Your task to perform on an android device: Open Android settings Image 0: 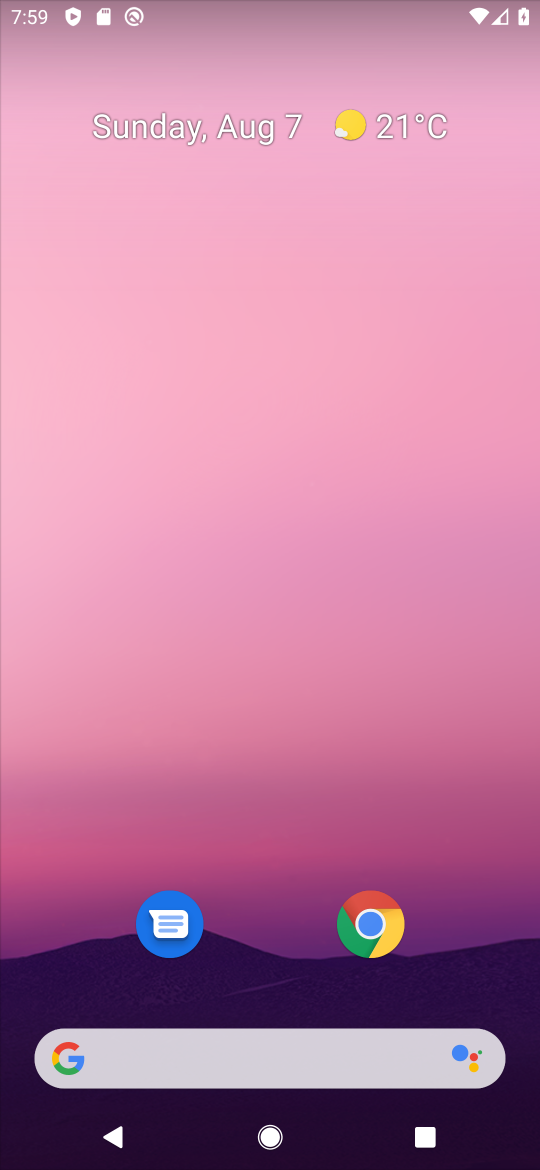
Step 0: drag from (274, 735) to (232, 2)
Your task to perform on an android device: Open Android settings Image 1: 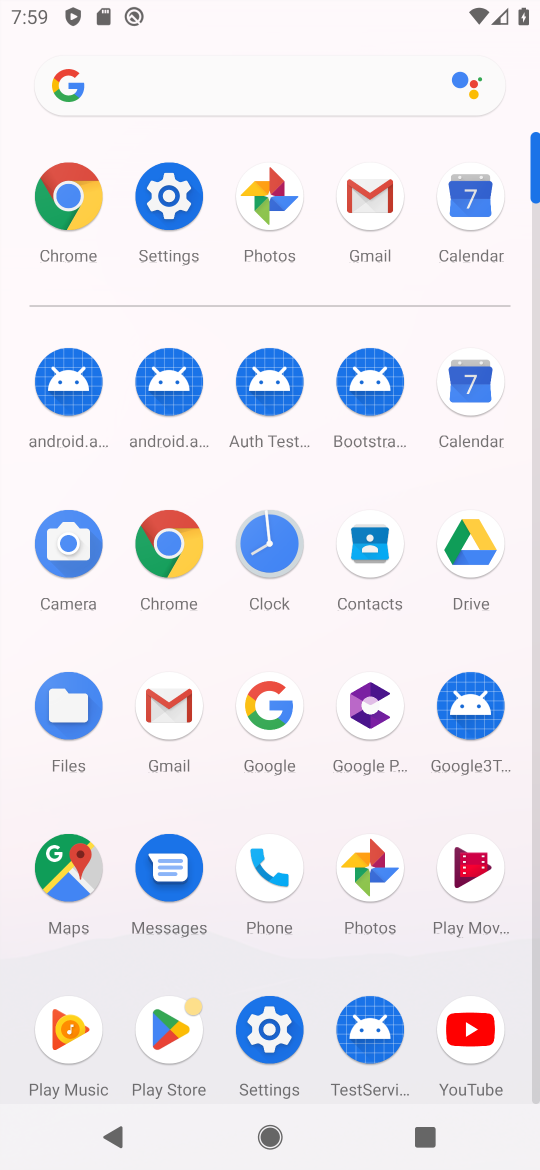
Step 1: click (167, 206)
Your task to perform on an android device: Open Android settings Image 2: 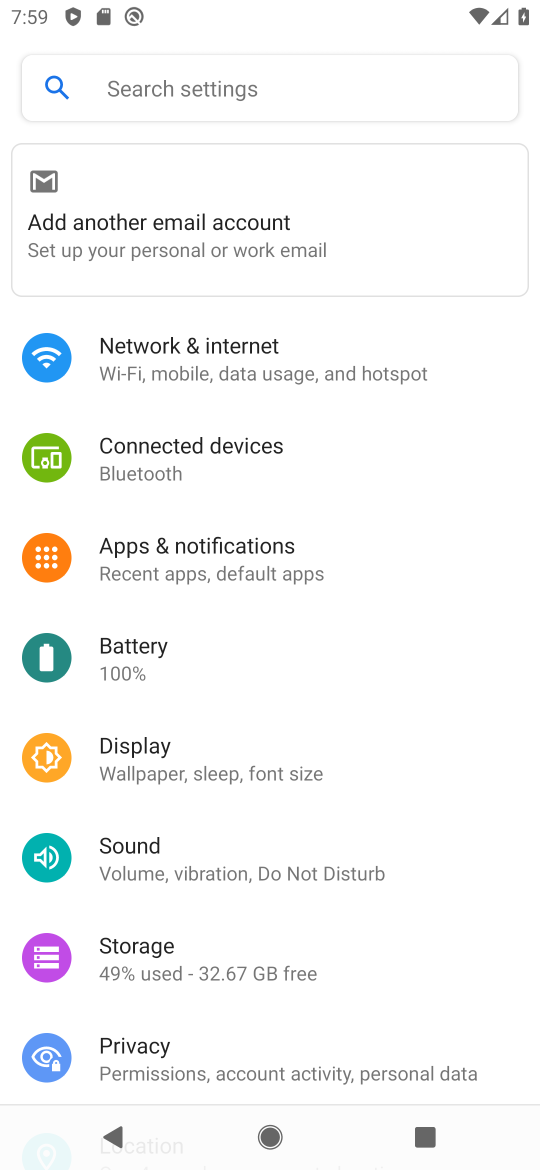
Step 2: click (306, 762)
Your task to perform on an android device: Open Android settings Image 3: 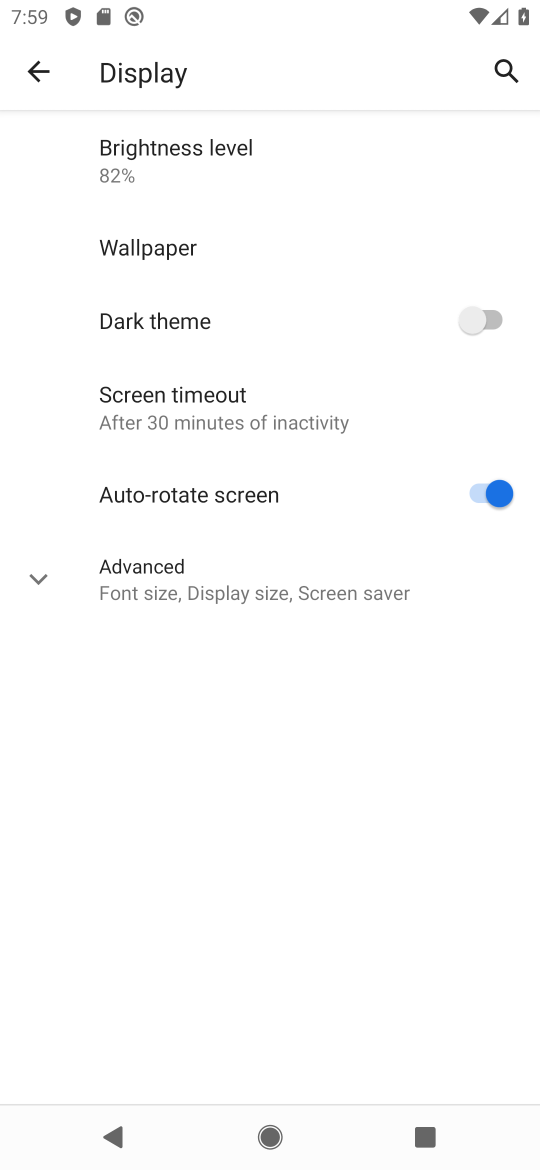
Step 3: click (37, 70)
Your task to perform on an android device: Open Android settings Image 4: 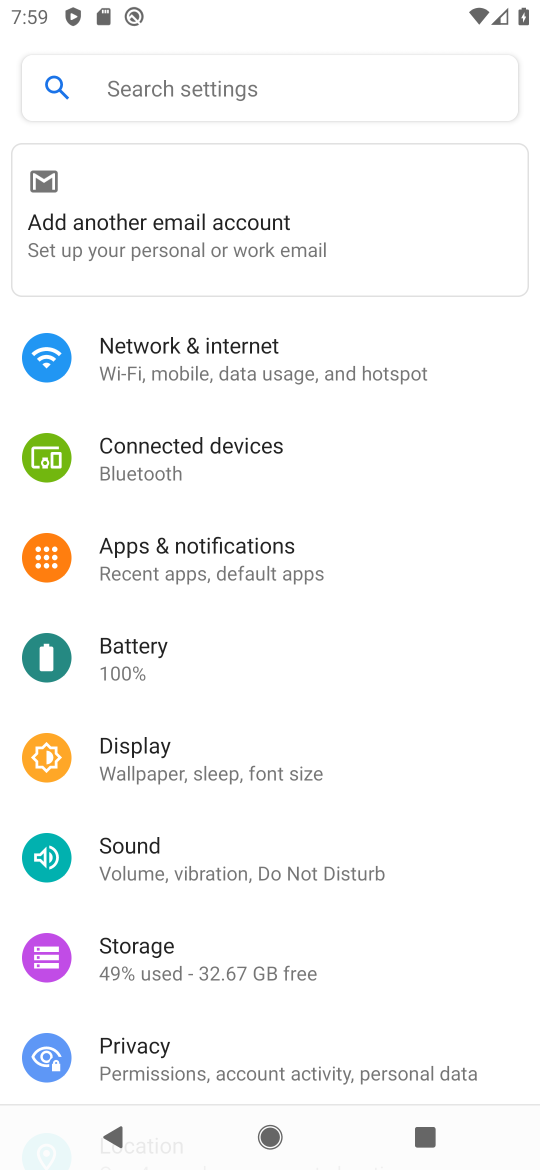
Step 4: drag from (353, 1029) to (300, 73)
Your task to perform on an android device: Open Android settings Image 5: 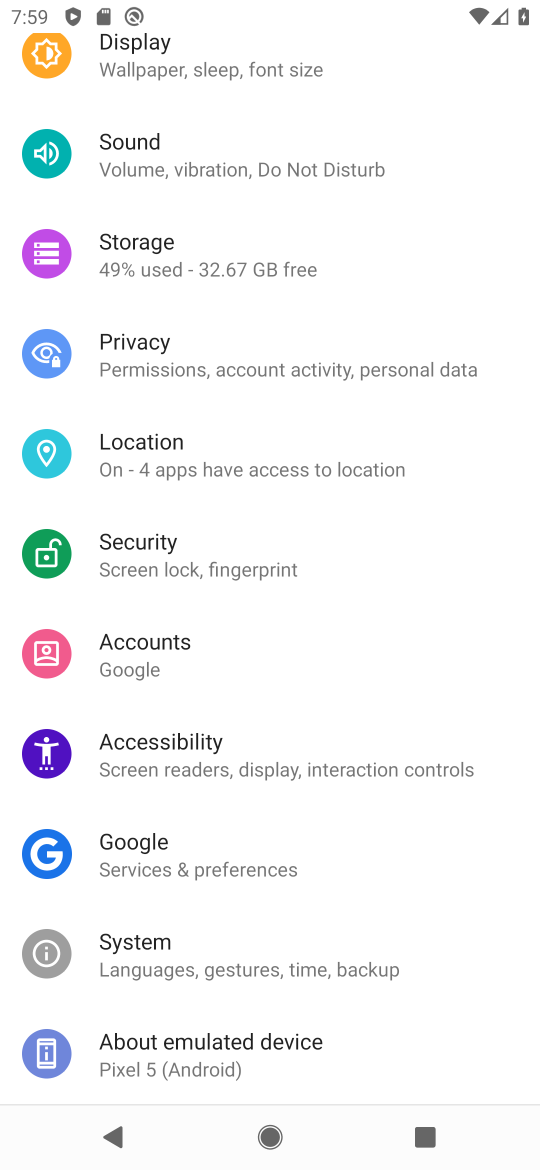
Step 5: click (300, 1048)
Your task to perform on an android device: Open Android settings Image 6: 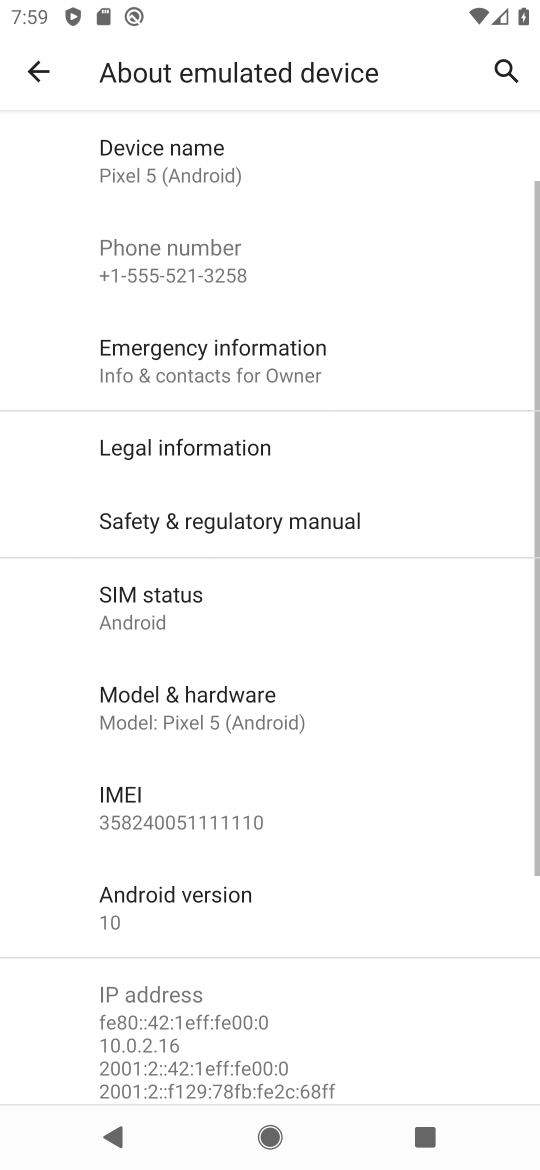
Step 6: task complete